Your task to perform on an android device: find photos in the google photos app Image 0: 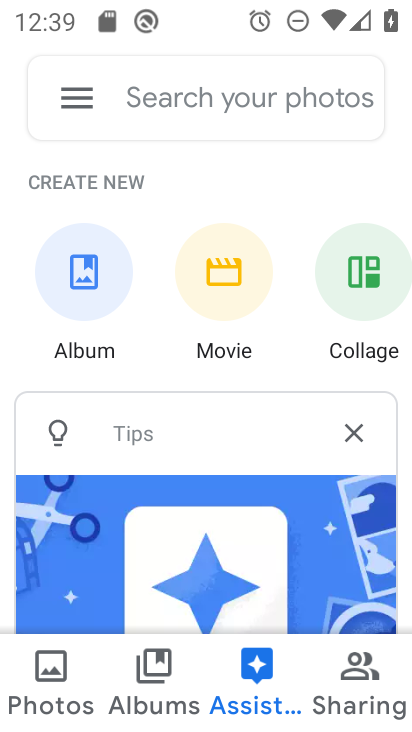
Step 0: click (77, 664)
Your task to perform on an android device: find photos in the google photos app Image 1: 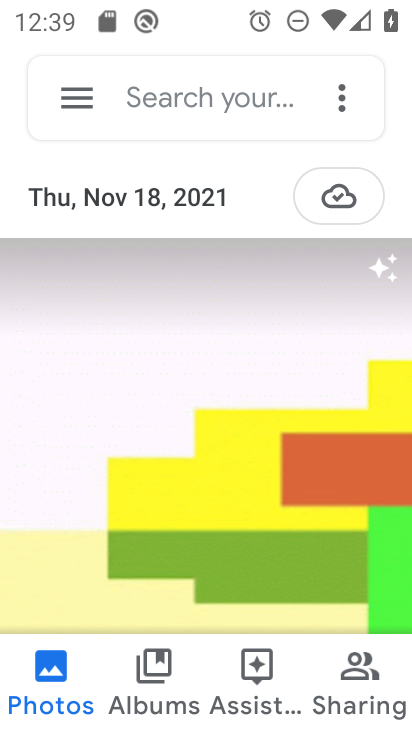
Step 1: task complete